Your task to perform on an android device: check battery use Image 0: 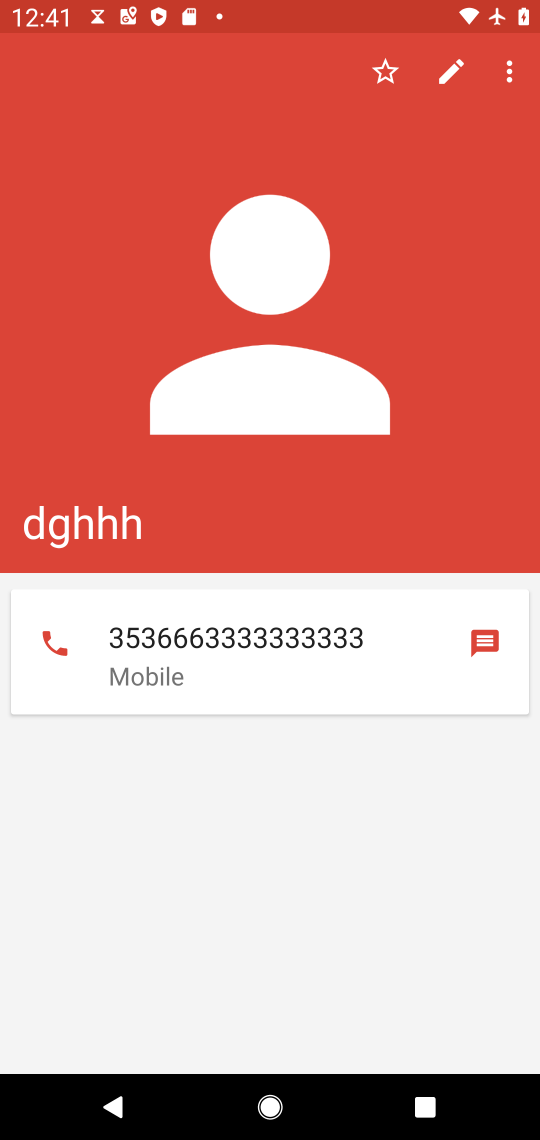
Step 0: press home button
Your task to perform on an android device: check battery use Image 1: 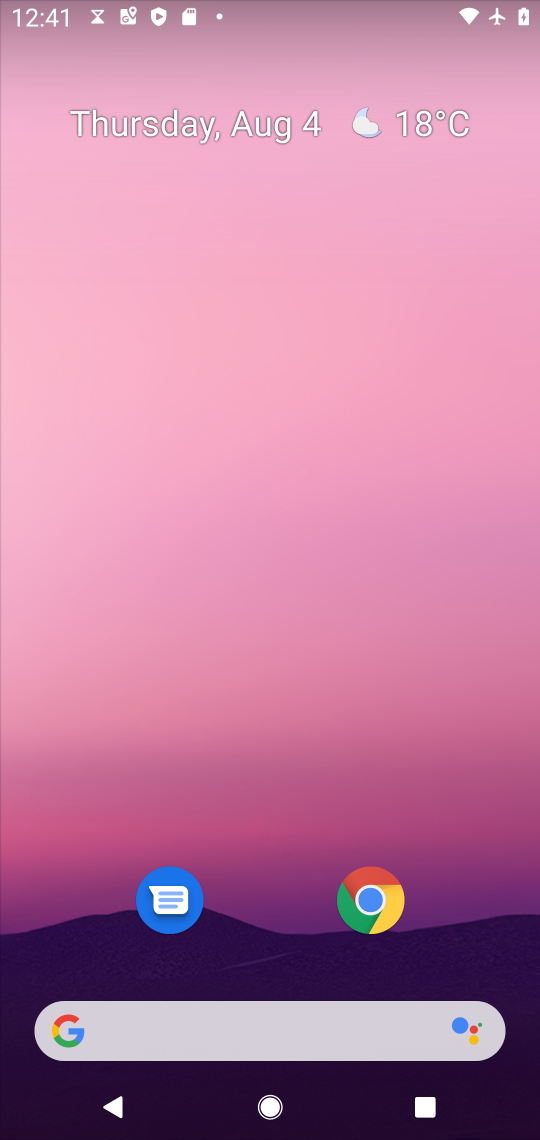
Step 1: drag from (301, 974) to (309, 136)
Your task to perform on an android device: check battery use Image 2: 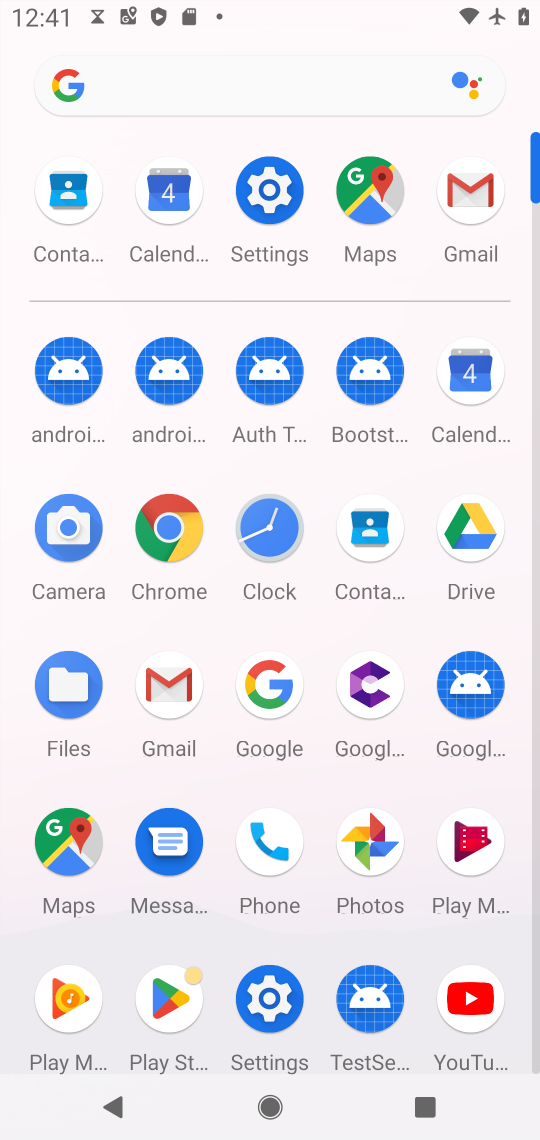
Step 2: click (268, 202)
Your task to perform on an android device: check battery use Image 3: 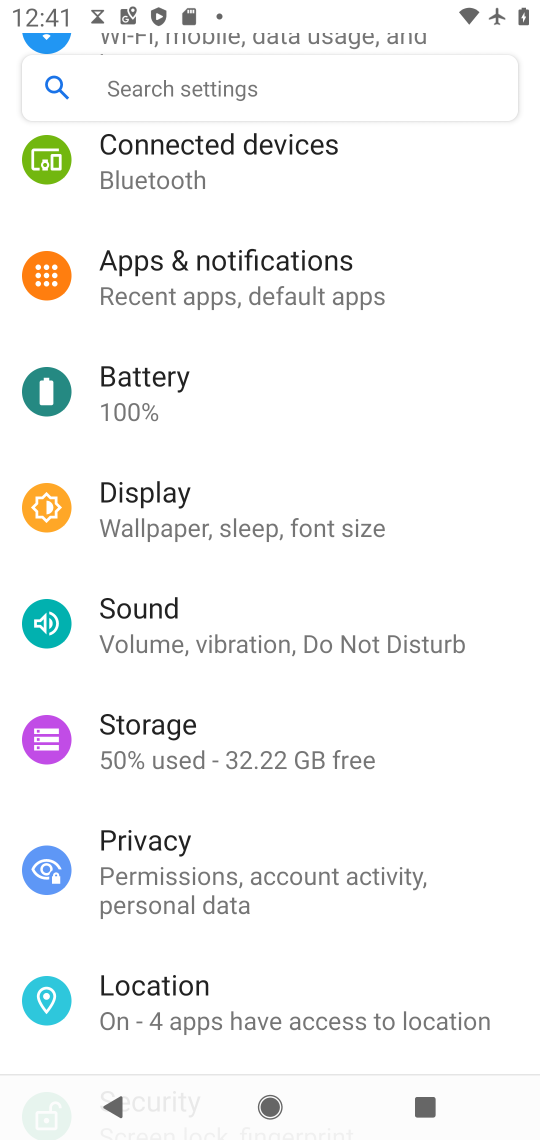
Step 3: click (138, 384)
Your task to perform on an android device: check battery use Image 4: 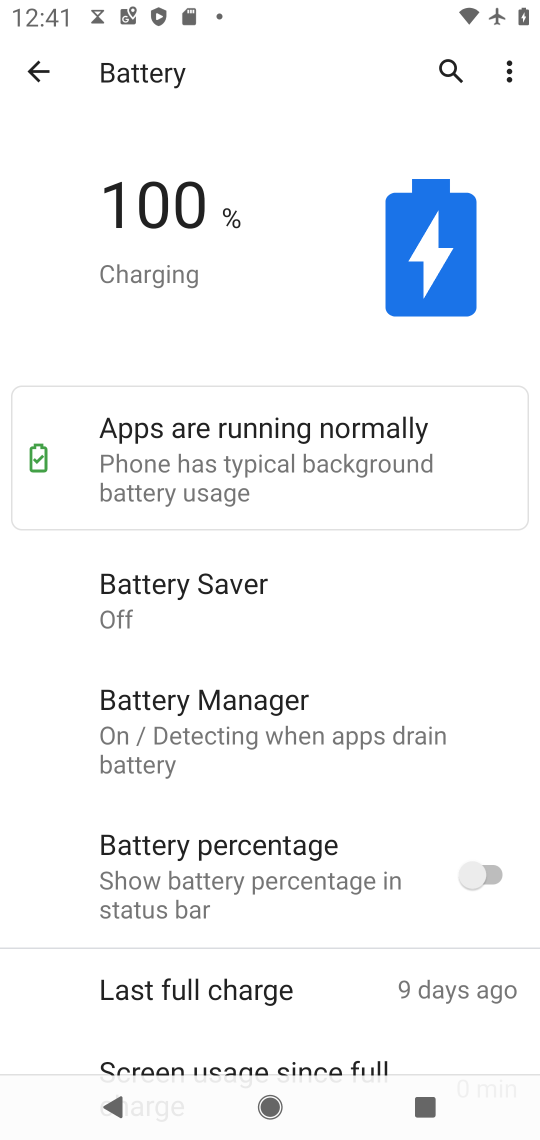
Step 4: click (514, 69)
Your task to perform on an android device: check battery use Image 5: 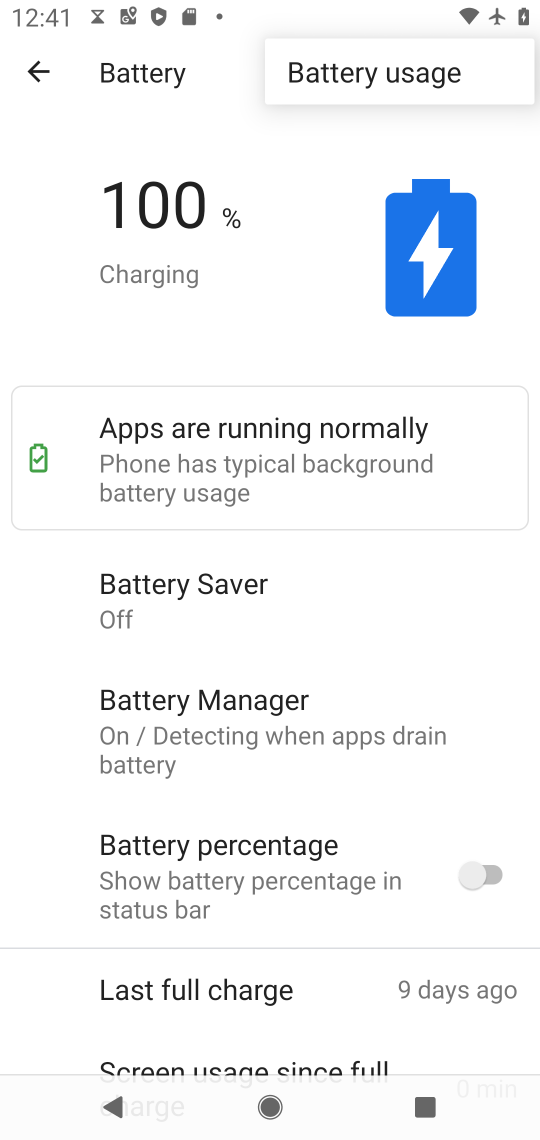
Step 5: click (374, 77)
Your task to perform on an android device: check battery use Image 6: 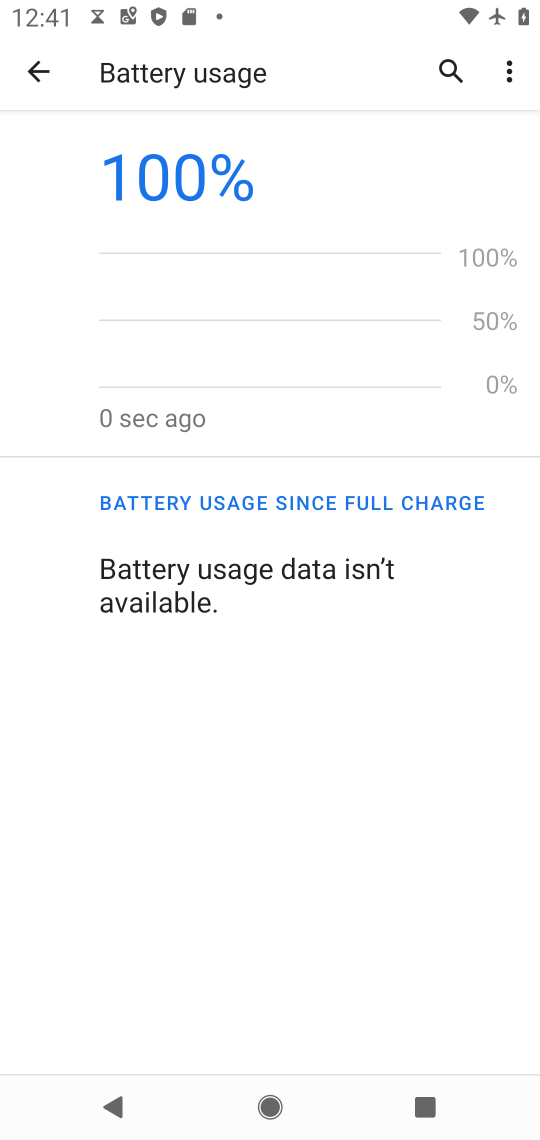
Step 6: task complete